Your task to perform on an android device: see tabs open on other devices in the chrome app Image 0: 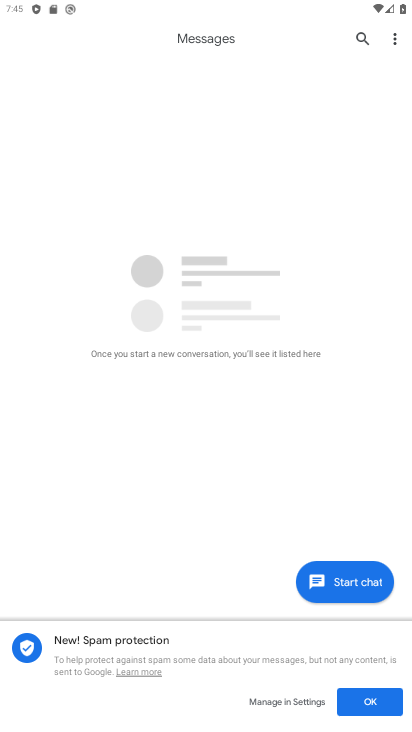
Step 0: press home button
Your task to perform on an android device: see tabs open on other devices in the chrome app Image 1: 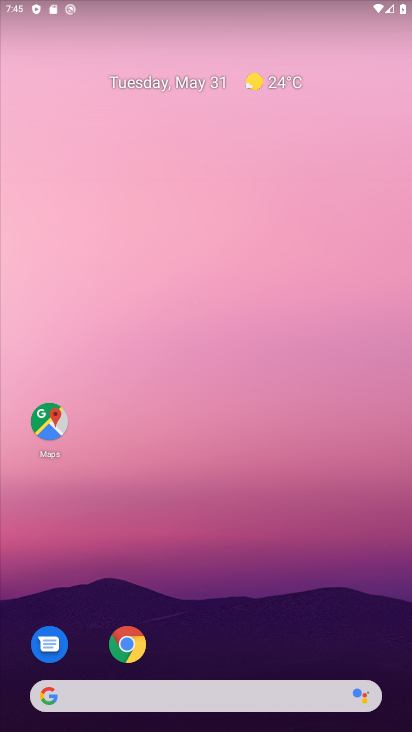
Step 1: click (130, 645)
Your task to perform on an android device: see tabs open on other devices in the chrome app Image 2: 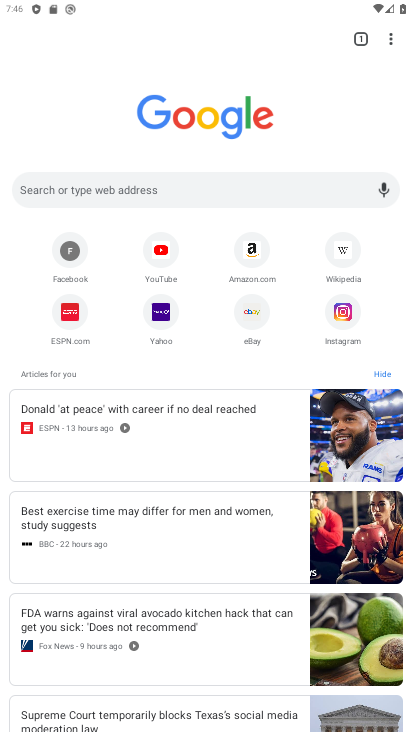
Step 2: click (388, 30)
Your task to perform on an android device: see tabs open on other devices in the chrome app Image 3: 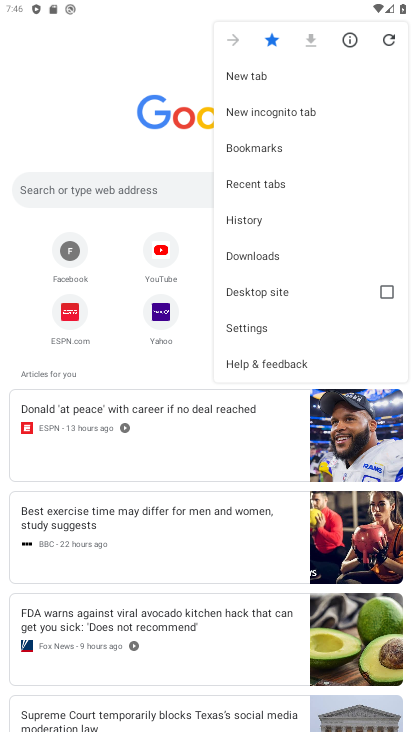
Step 3: click (132, 69)
Your task to perform on an android device: see tabs open on other devices in the chrome app Image 4: 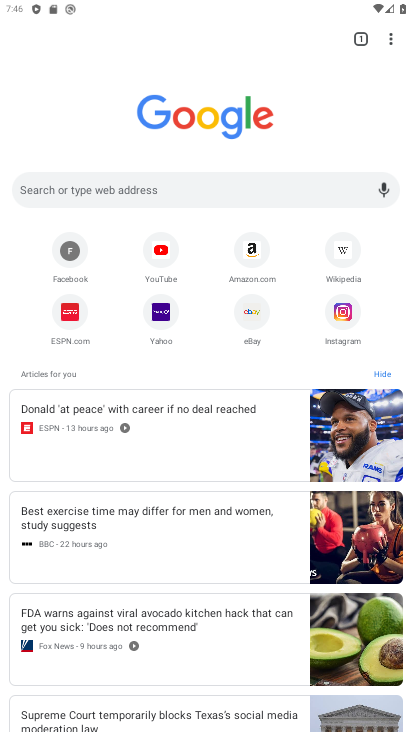
Step 4: click (367, 35)
Your task to perform on an android device: see tabs open on other devices in the chrome app Image 5: 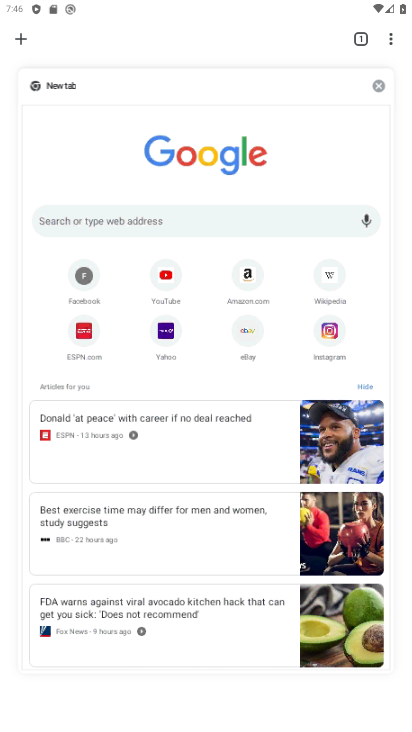
Step 5: task complete